Your task to perform on an android device: check google app version Image 0: 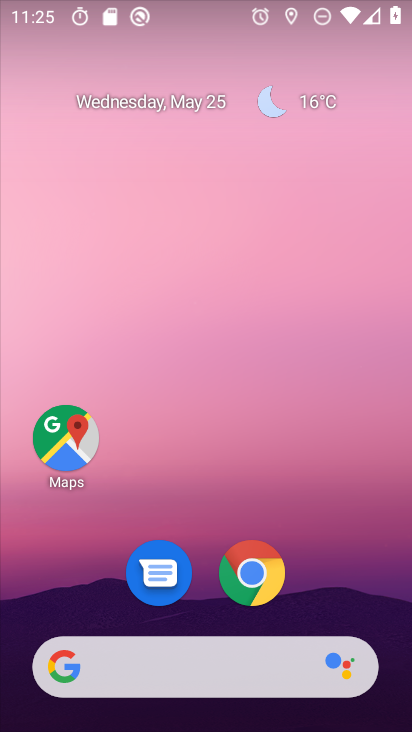
Step 0: drag from (342, 606) to (338, 25)
Your task to perform on an android device: check google app version Image 1: 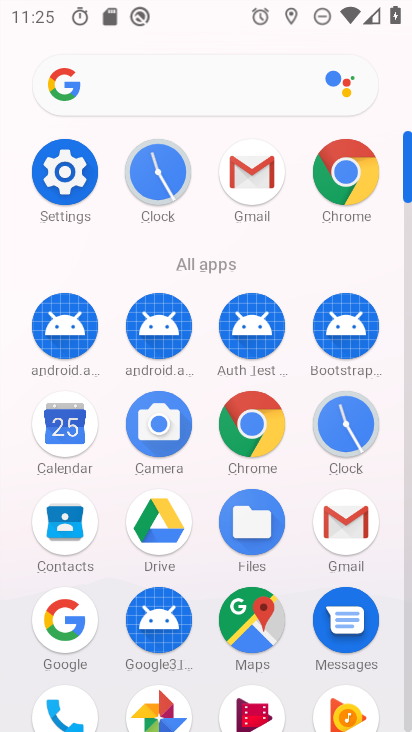
Step 1: click (60, 630)
Your task to perform on an android device: check google app version Image 2: 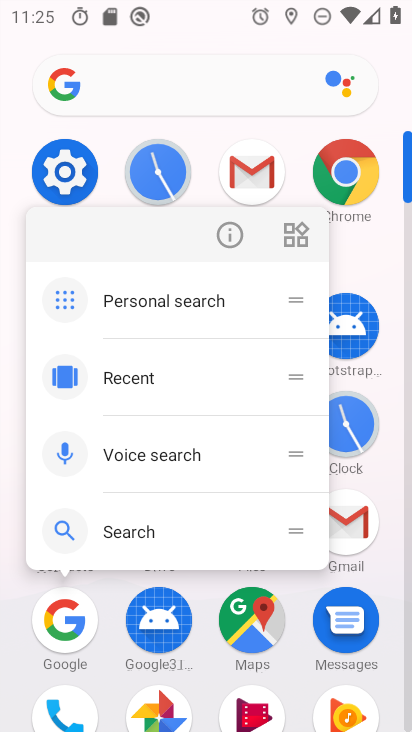
Step 2: click (226, 238)
Your task to perform on an android device: check google app version Image 3: 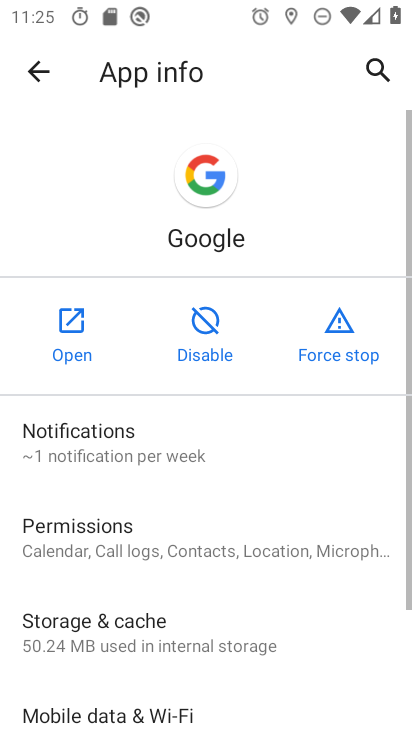
Step 3: drag from (231, 589) to (216, 186)
Your task to perform on an android device: check google app version Image 4: 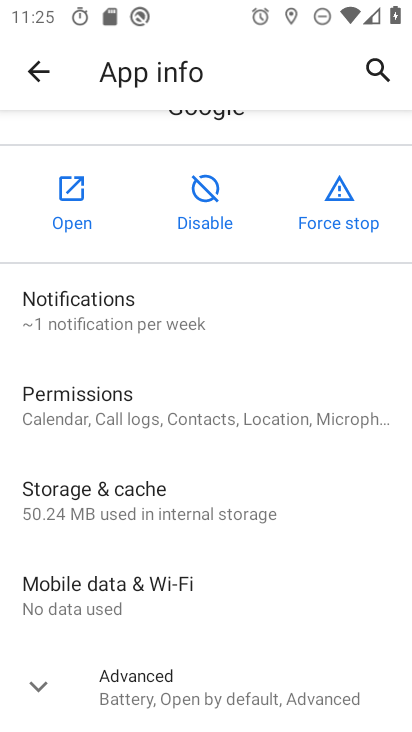
Step 4: click (33, 692)
Your task to perform on an android device: check google app version Image 5: 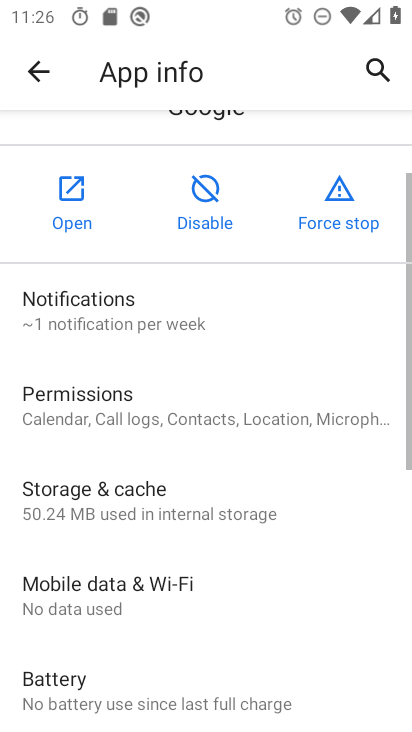
Step 5: task complete